Your task to perform on an android device: Search for Mexican restaurants on Maps Image 0: 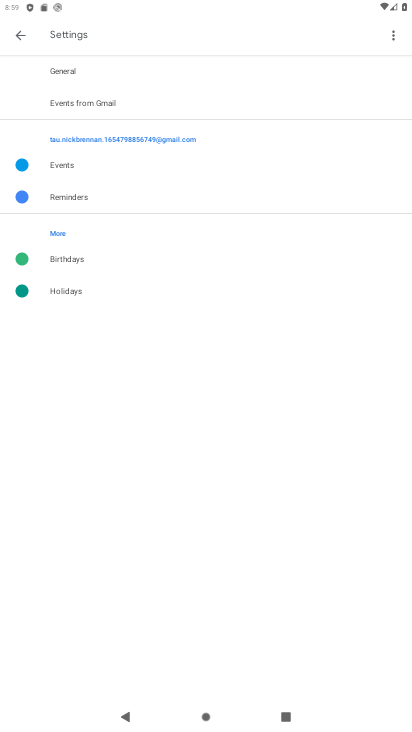
Step 0: press home button
Your task to perform on an android device: Search for Mexican restaurants on Maps Image 1: 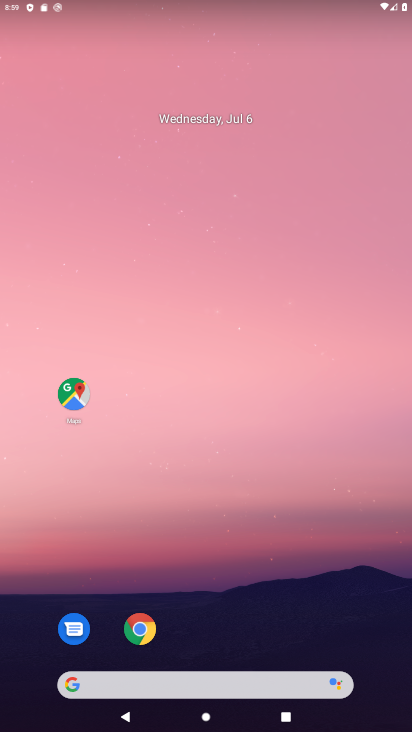
Step 1: drag from (277, 669) to (411, 554)
Your task to perform on an android device: Search for Mexican restaurants on Maps Image 2: 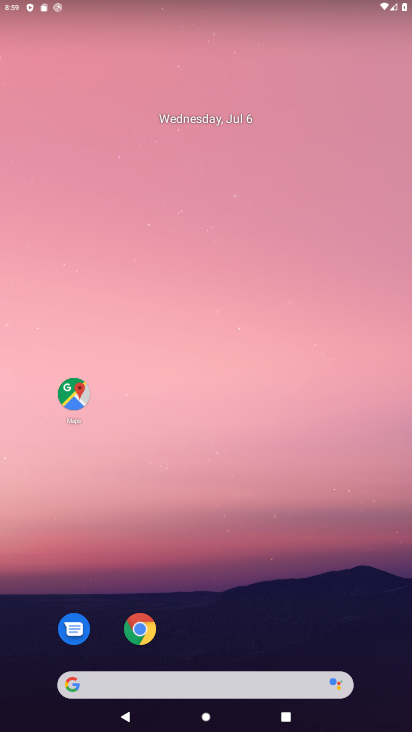
Step 2: click (366, 415)
Your task to perform on an android device: Search for Mexican restaurants on Maps Image 3: 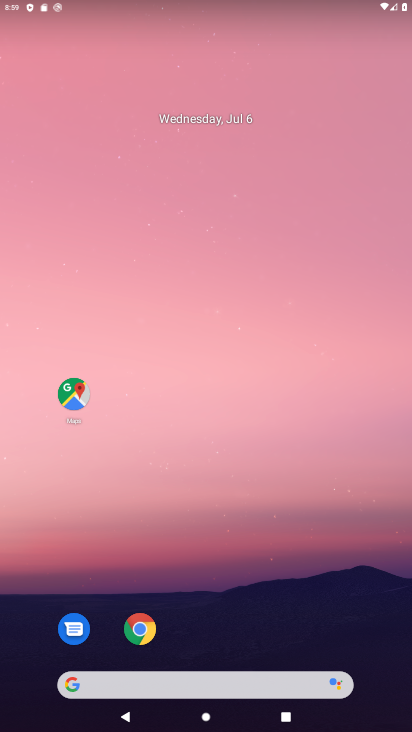
Step 3: drag from (299, 602) to (278, 82)
Your task to perform on an android device: Search for Mexican restaurants on Maps Image 4: 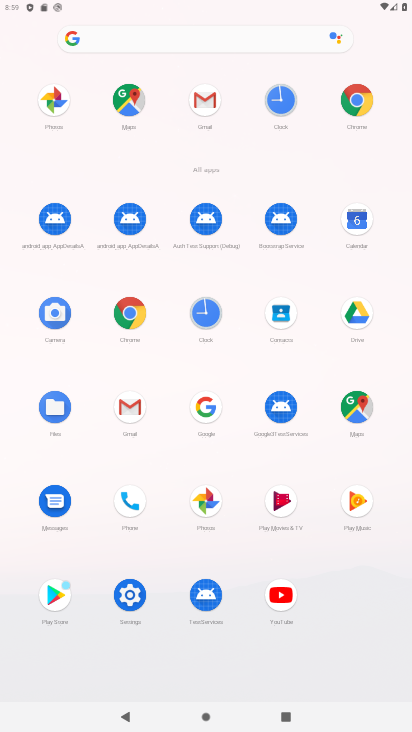
Step 4: click (358, 405)
Your task to perform on an android device: Search for Mexican restaurants on Maps Image 5: 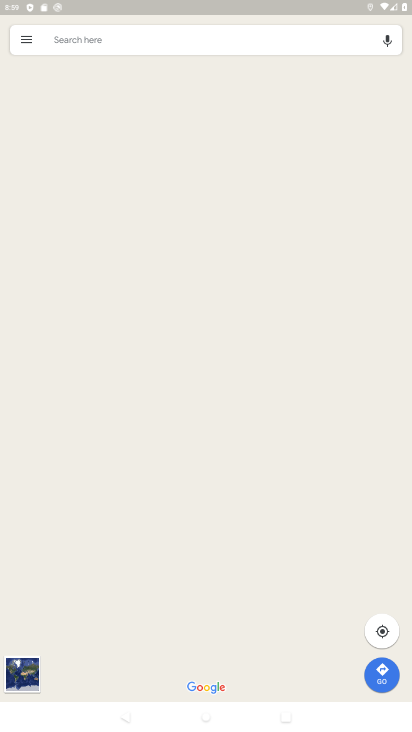
Step 5: click (251, 38)
Your task to perform on an android device: Search for Mexican restaurants on Maps Image 6: 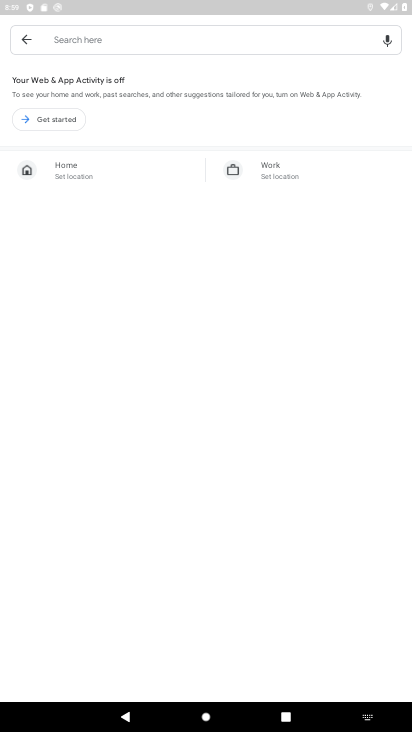
Step 6: type "mexican restaurant"
Your task to perform on an android device: Search for Mexican restaurants on Maps Image 7: 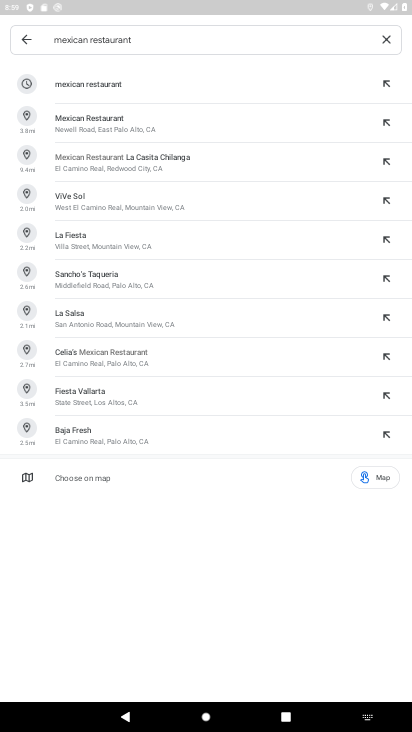
Step 7: click (147, 87)
Your task to perform on an android device: Search for Mexican restaurants on Maps Image 8: 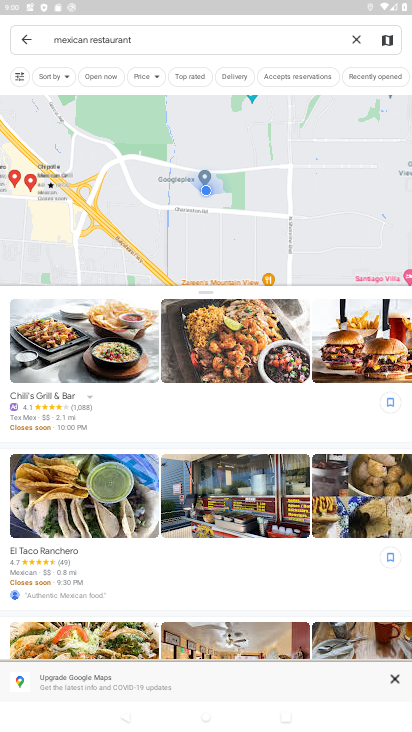
Step 8: task complete